Your task to perform on an android device: open app "Gmail" Image 0: 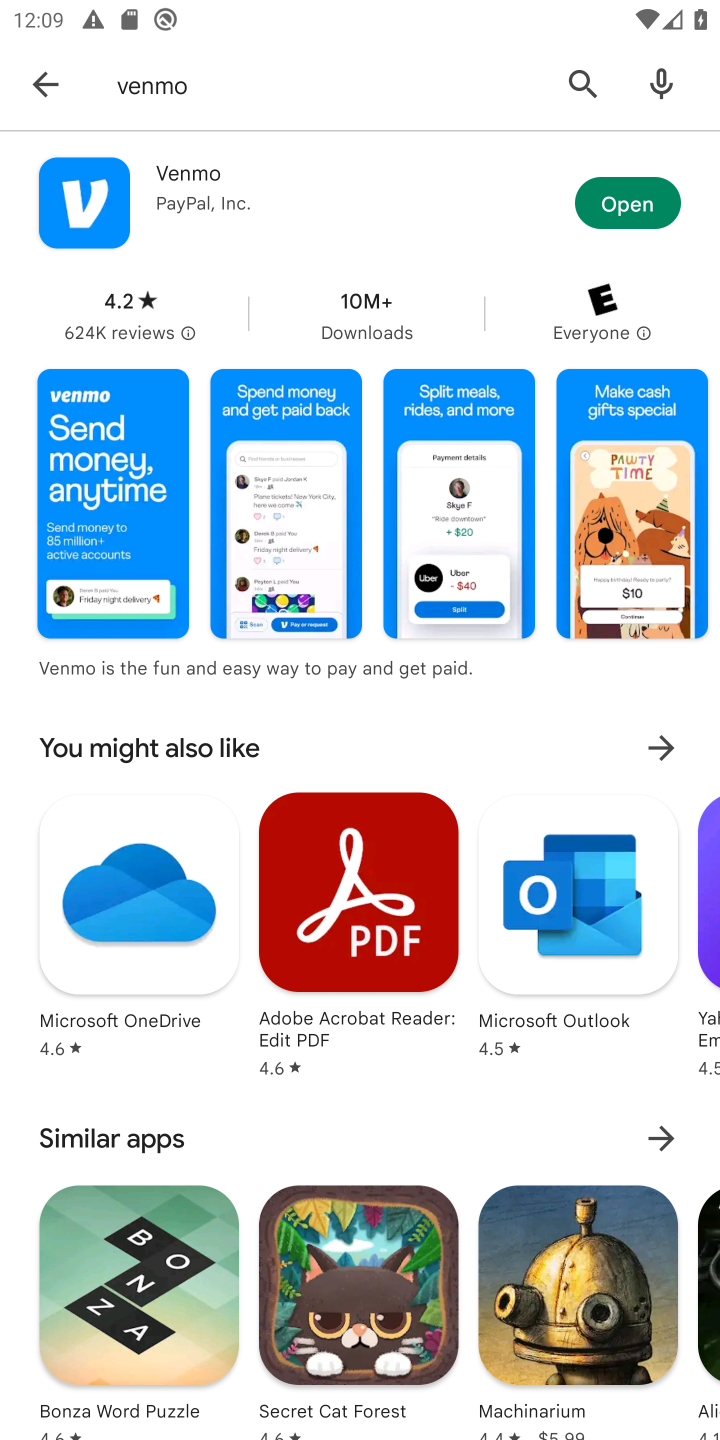
Step 0: press home button
Your task to perform on an android device: open app "Gmail" Image 1: 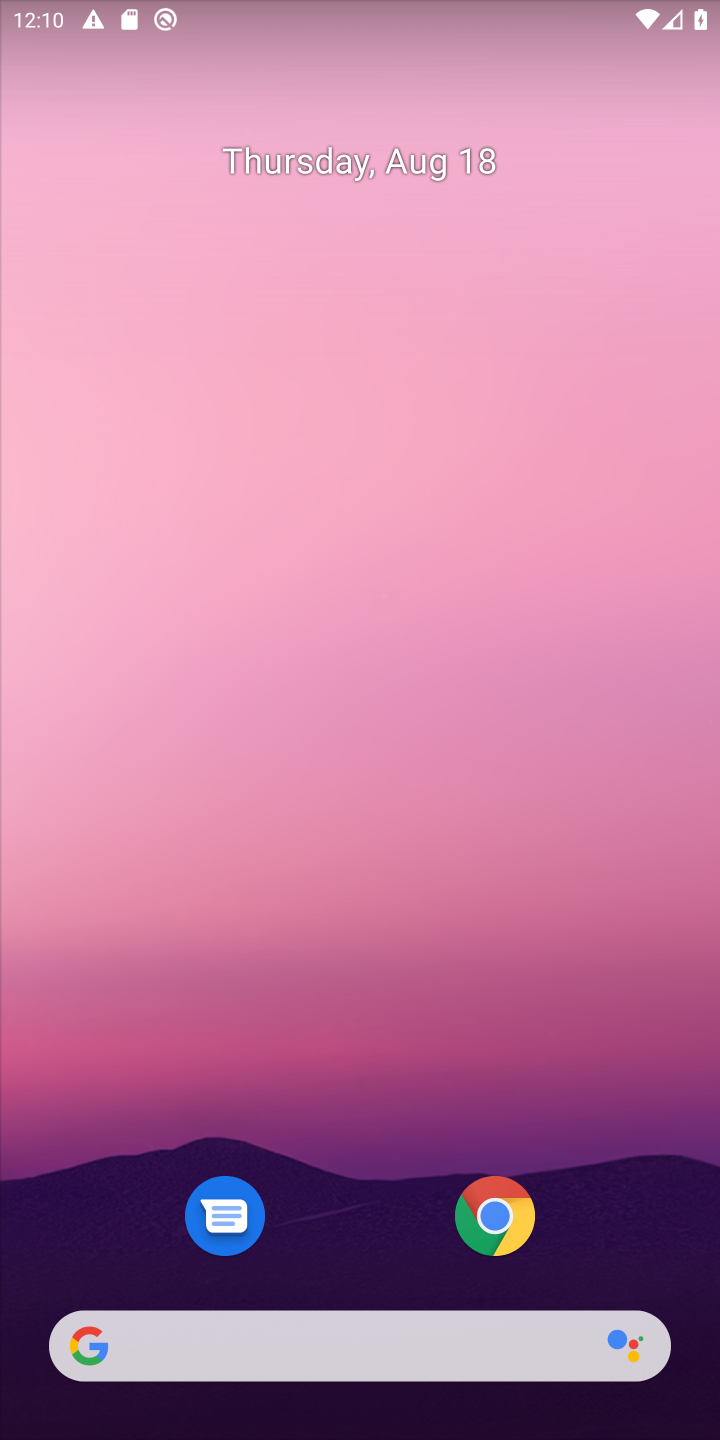
Step 1: drag from (693, 1048) to (600, 586)
Your task to perform on an android device: open app "Gmail" Image 2: 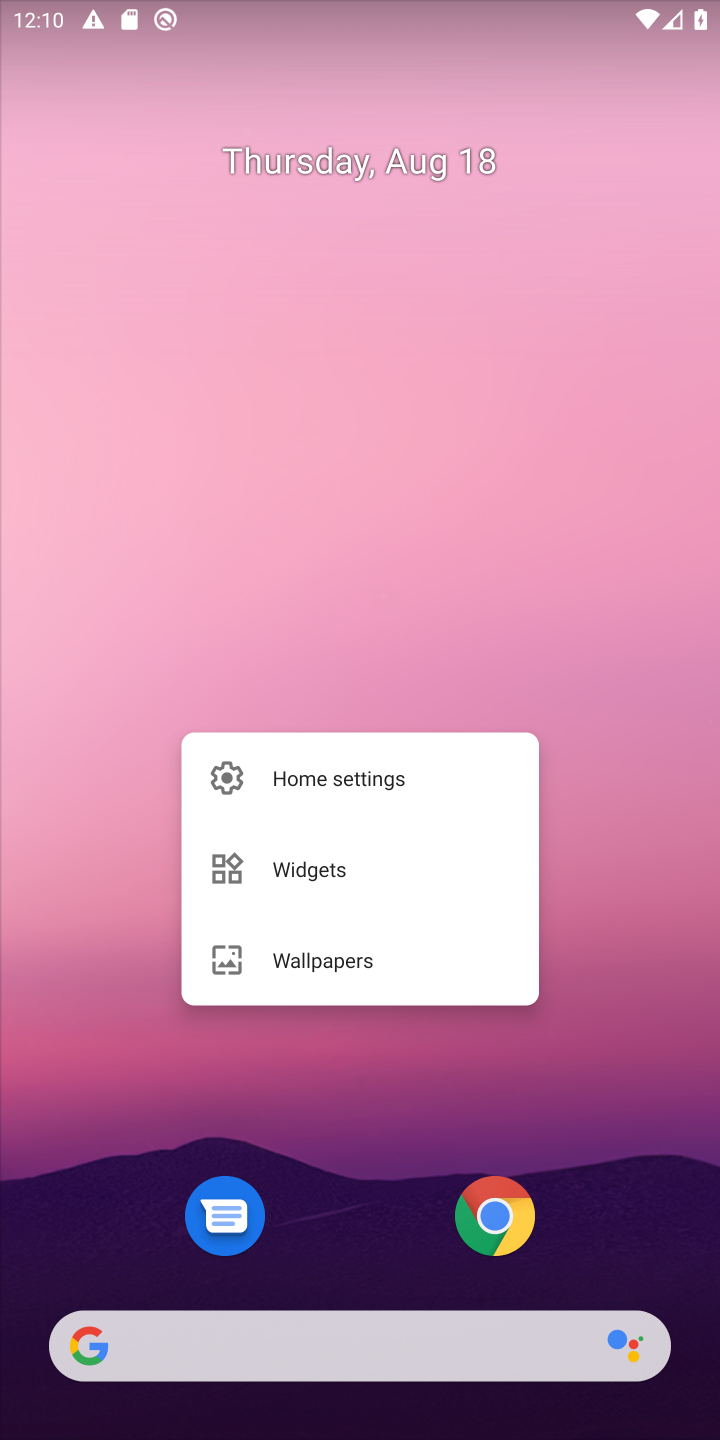
Step 2: drag from (683, 1229) to (623, 100)
Your task to perform on an android device: open app "Gmail" Image 3: 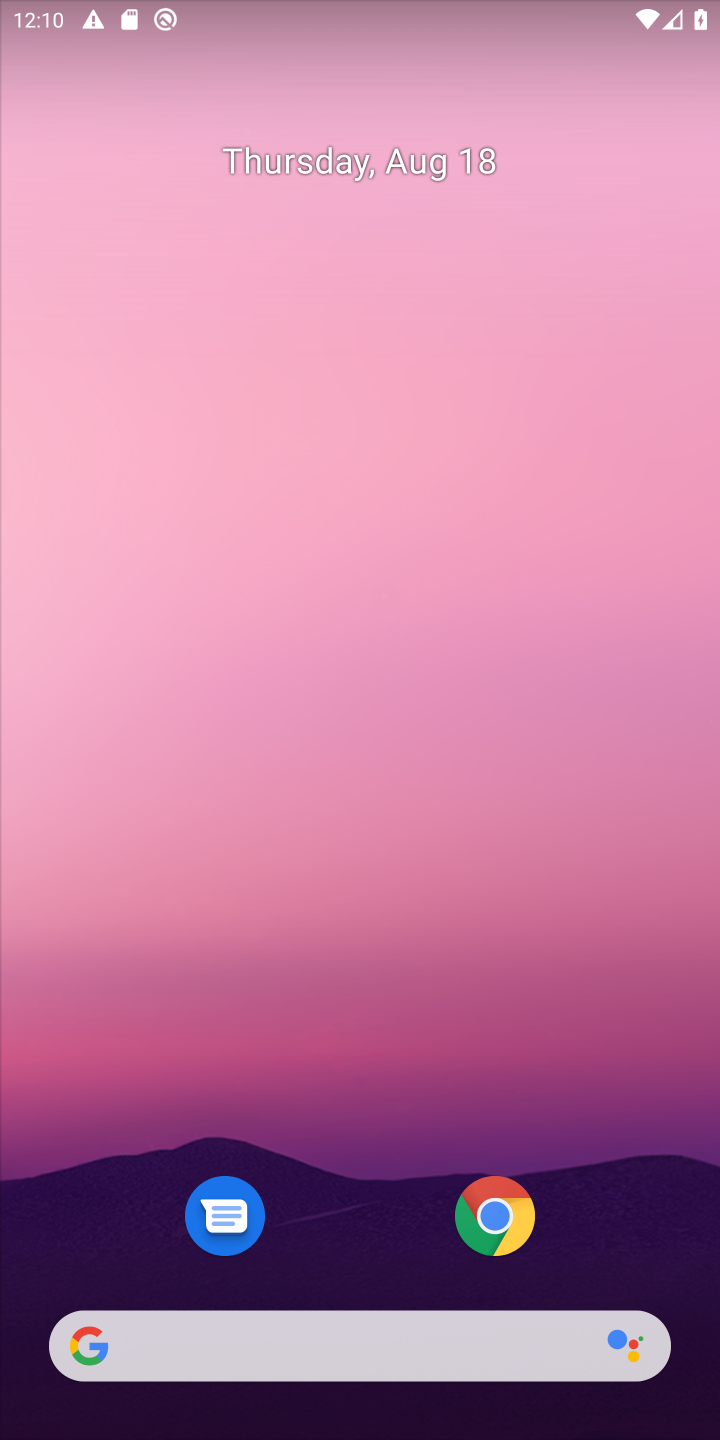
Step 3: drag from (674, 1165) to (554, 51)
Your task to perform on an android device: open app "Gmail" Image 4: 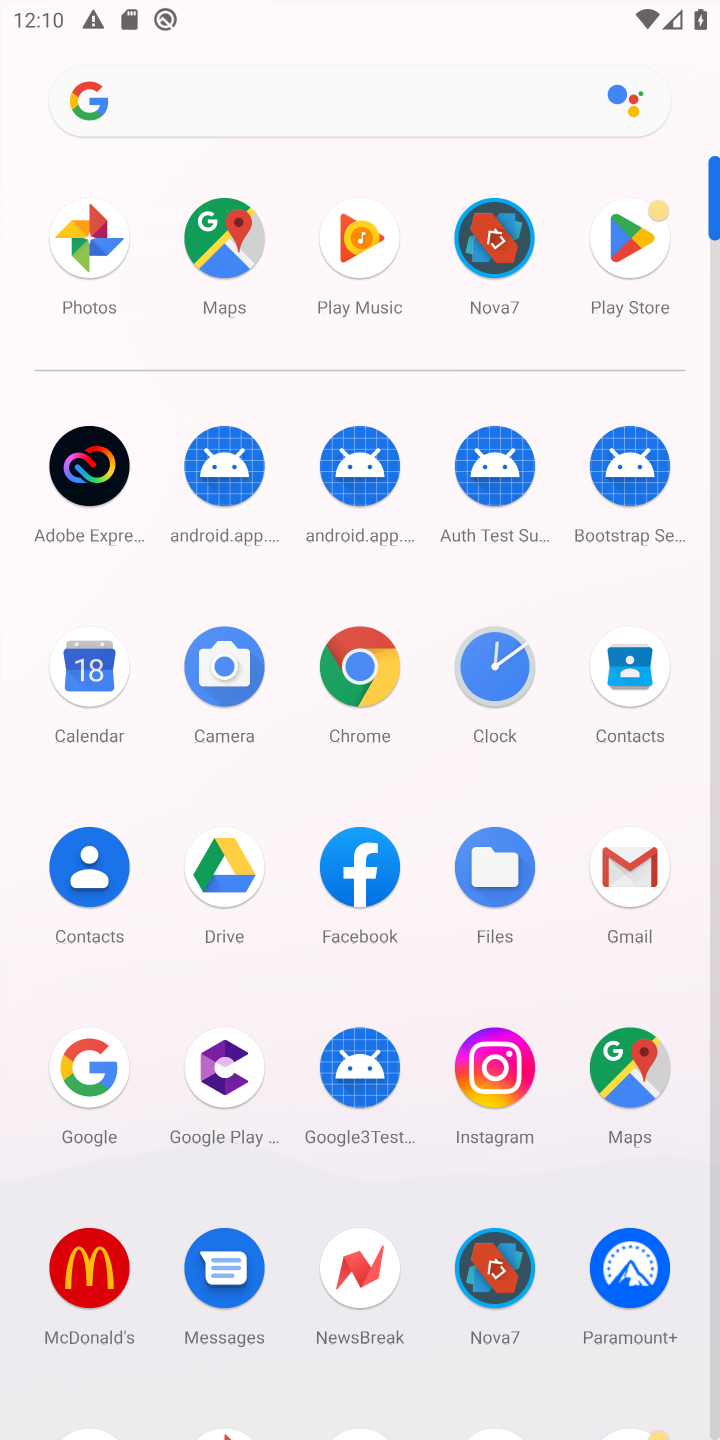
Step 4: click (642, 890)
Your task to perform on an android device: open app "Gmail" Image 5: 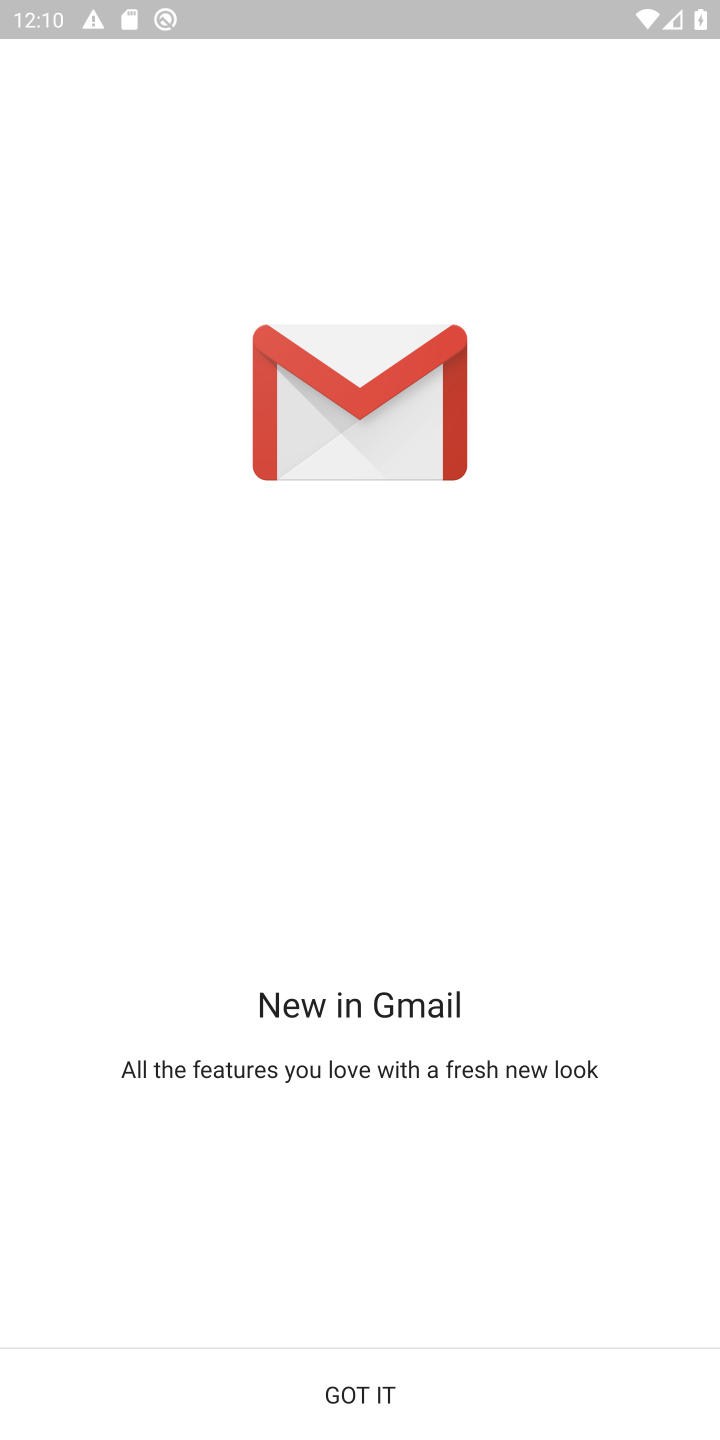
Step 5: click (376, 1385)
Your task to perform on an android device: open app "Gmail" Image 6: 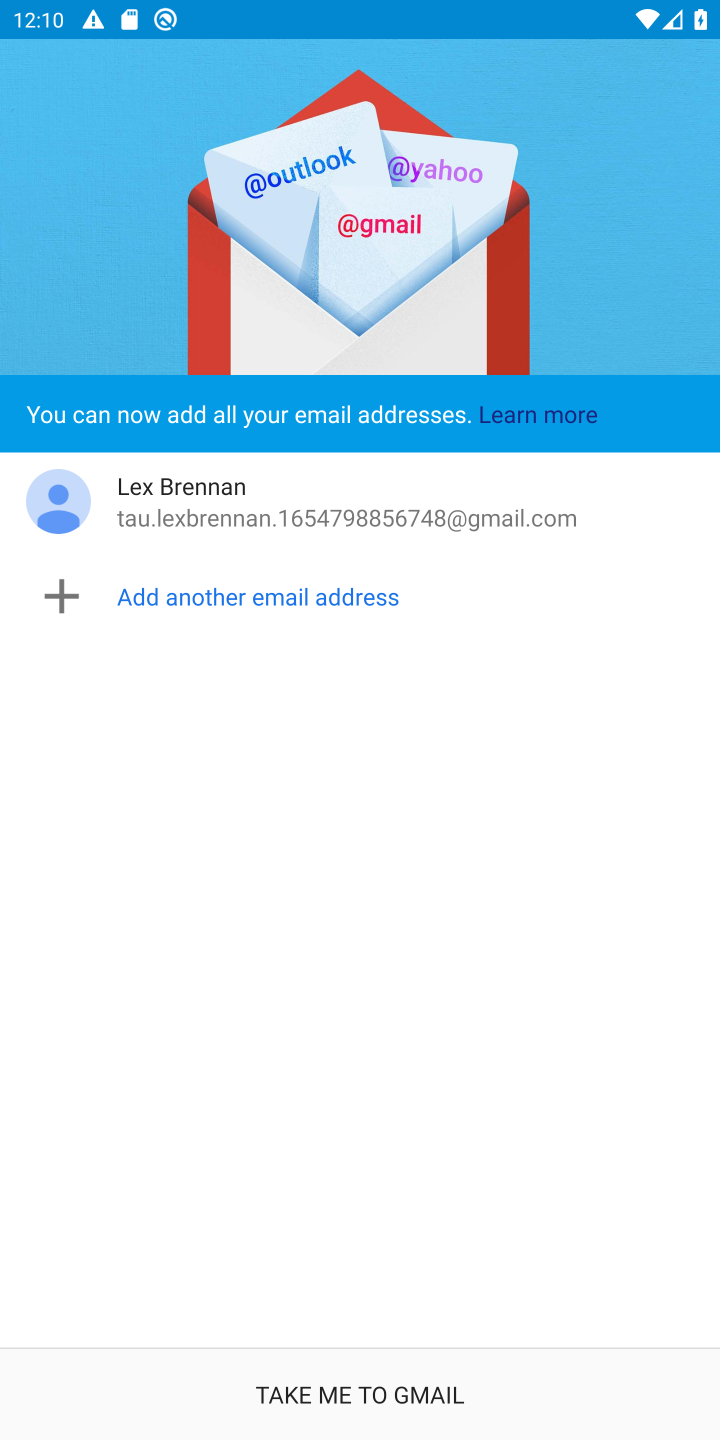
Step 6: click (443, 1381)
Your task to perform on an android device: open app "Gmail" Image 7: 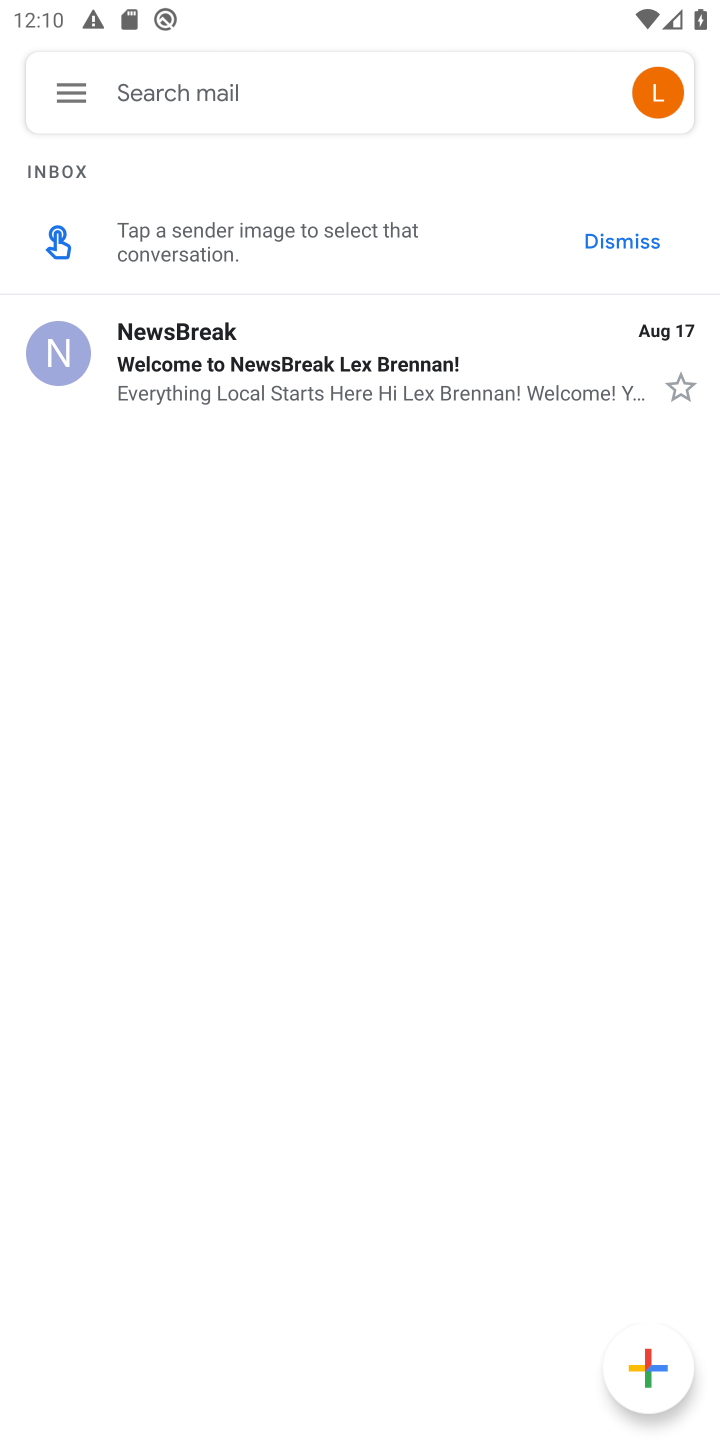
Step 7: task complete